Your task to perform on an android device: Show me the alarms in the clock app Image 0: 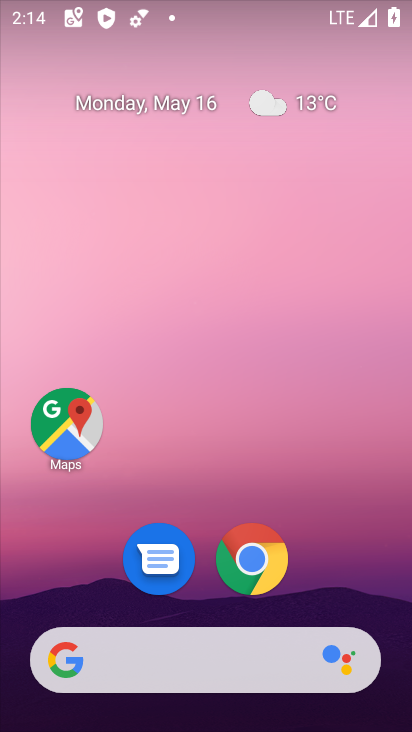
Step 0: drag from (196, 517) to (274, 29)
Your task to perform on an android device: Show me the alarms in the clock app Image 1: 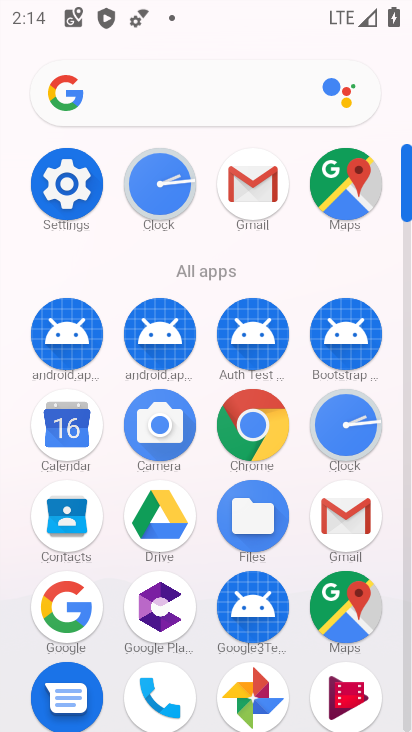
Step 1: click (158, 189)
Your task to perform on an android device: Show me the alarms in the clock app Image 2: 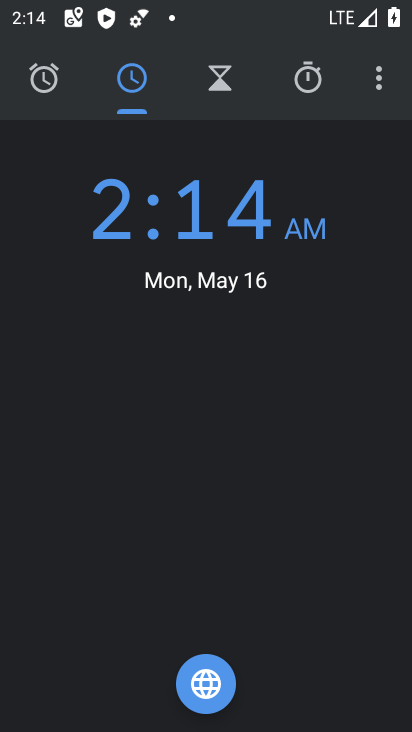
Step 2: click (47, 77)
Your task to perform on an android device: Show me the alarms in the clock app Image 3: 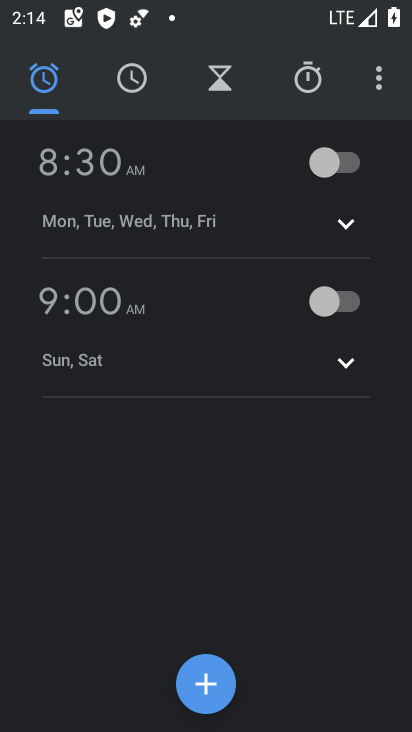
Step 3: task complete